Your task to perform on an android device: Open network settings Image 0: 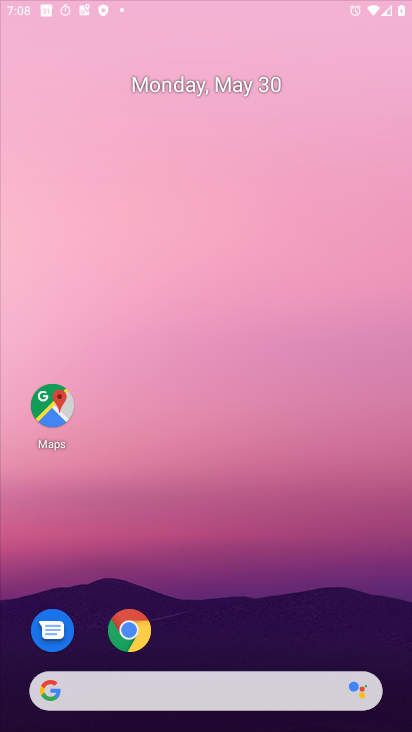
Step 0: click (321, 16)
Your task to perform on an android device: Open network settings Image 1: 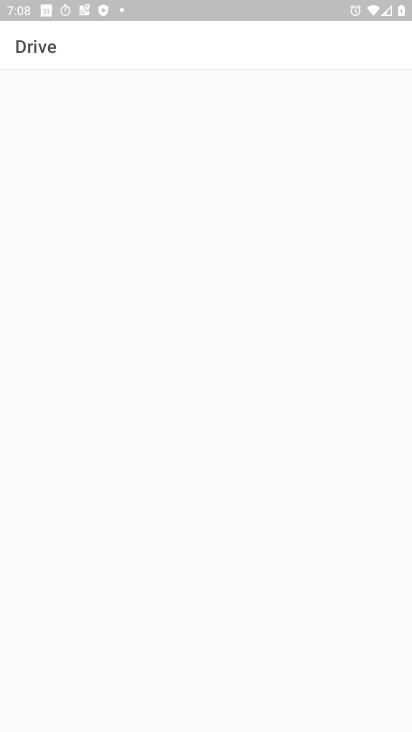
Step 1: press home button
Your task to perform on an android device: Open network settings Image 2: 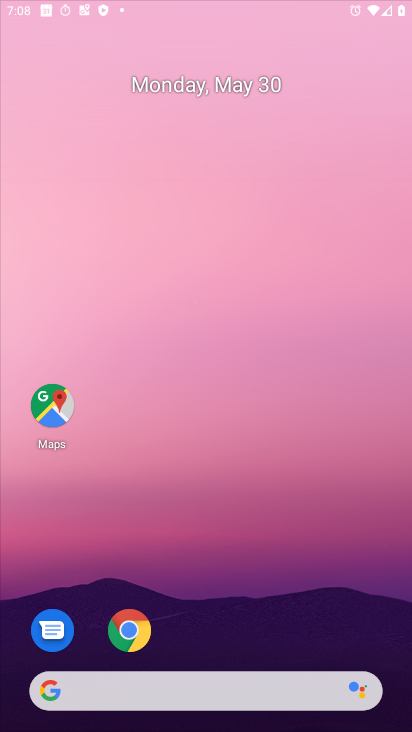
Step 2: drag from (355, 648) to (205, 7)
Your task to perform on an android device: Open network settings Image 3: 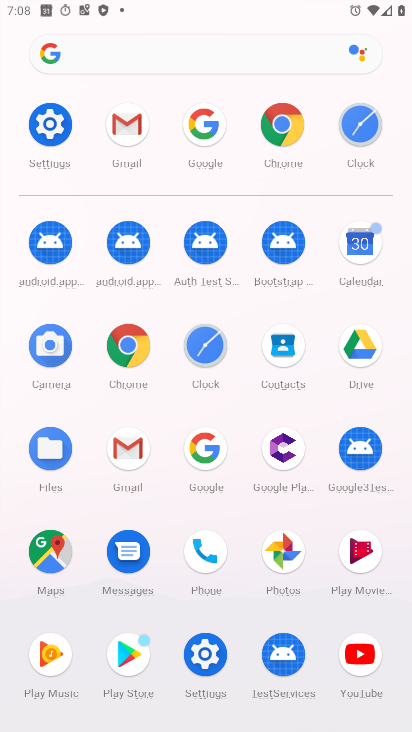
Step 3: click (45, 121)
Your task to perform on an android device: Open network settings Image 4: 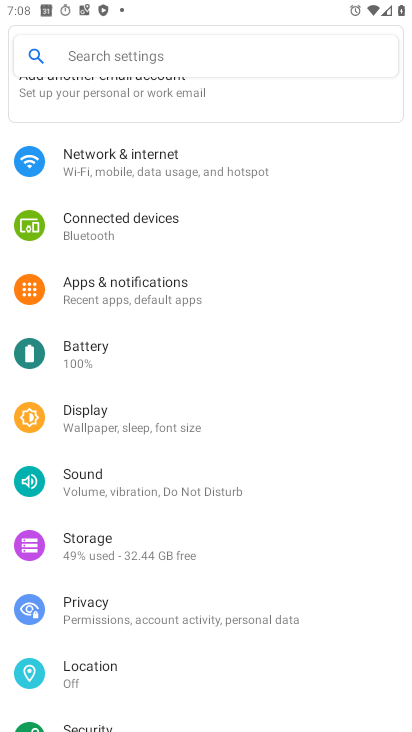
Step 4: click (170, 158)
Your task to perform on an android device: Open network settings Image 5: 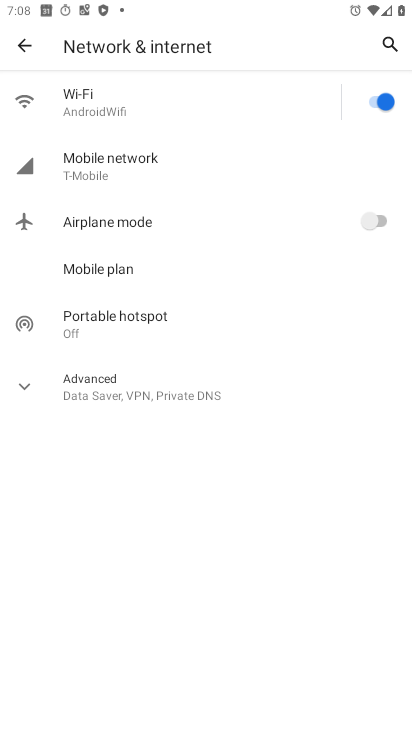
Step 5: task complete